Your task to perform on an android device: Go to network settings Image 0: 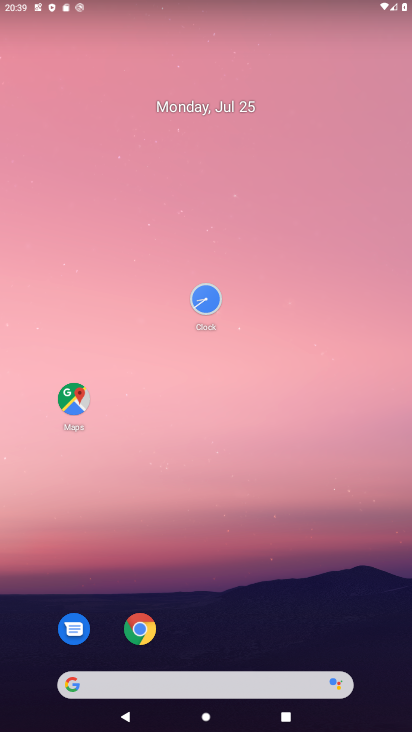
Step 0: drag from (217, 623) to (277, 0)
Your task to perform on an android device: Go to network settings Image 1: 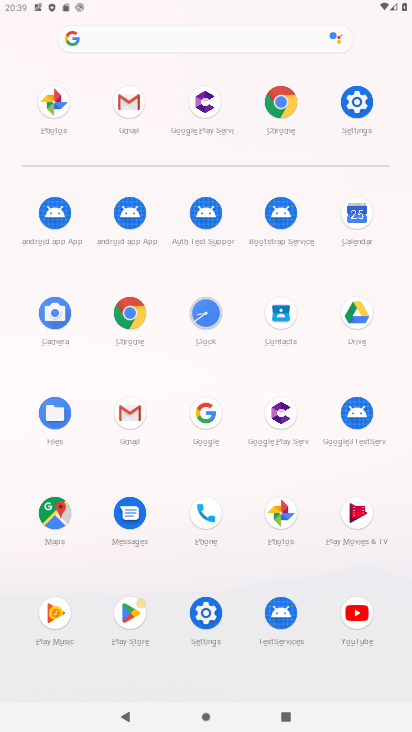
Step 1: click (199, 621)
Your task to perform on an android device: Go to network settings Image 2: 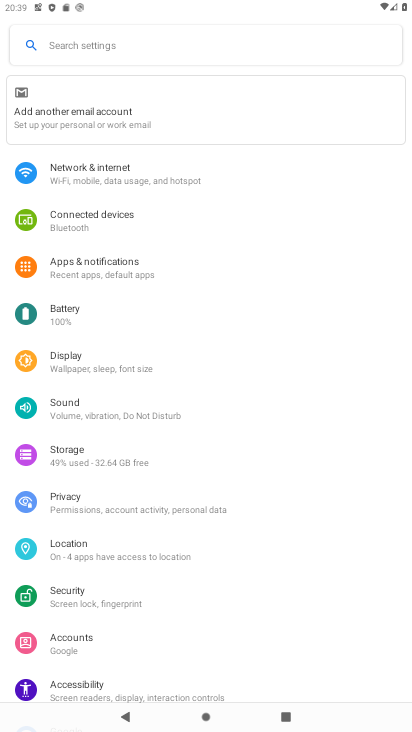
Step 2: click (124, 181)
Your task to perform on an android device: Go to network settings Image 3: 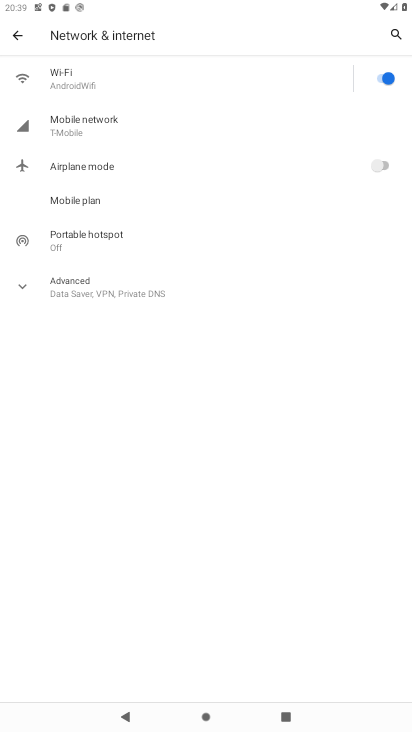
Step 3: click (110, 117)
Your task to perform on an android device: Go to network settings Image 4: 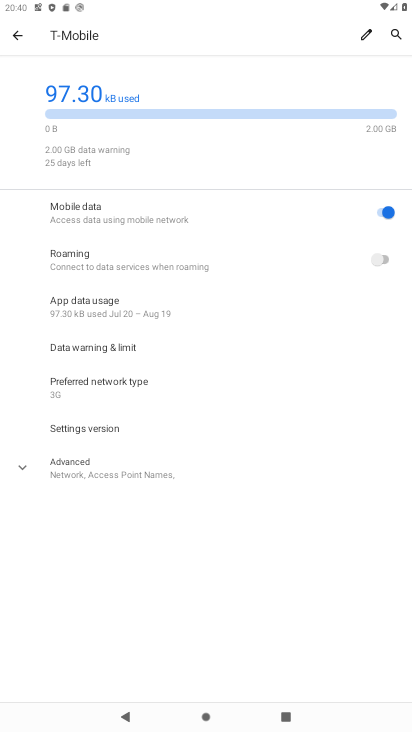
Step 4: task complete